Your task to perform on an android device: Go to Android settings Image 0: 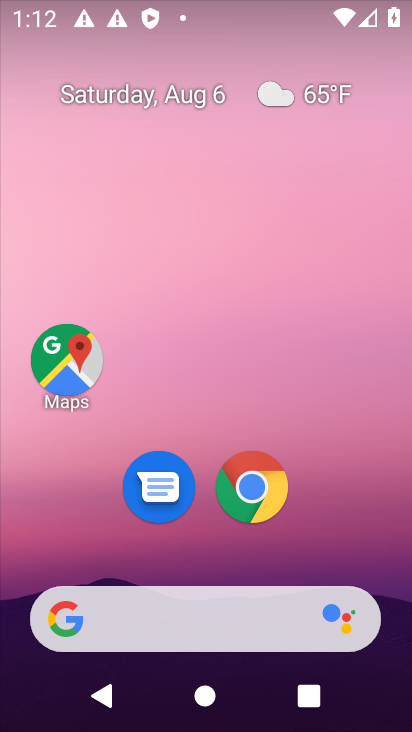
Step 0: drag from (202, 547) to (230, 109)
Your task to perform on an android device: Go to Android settings Image 1: 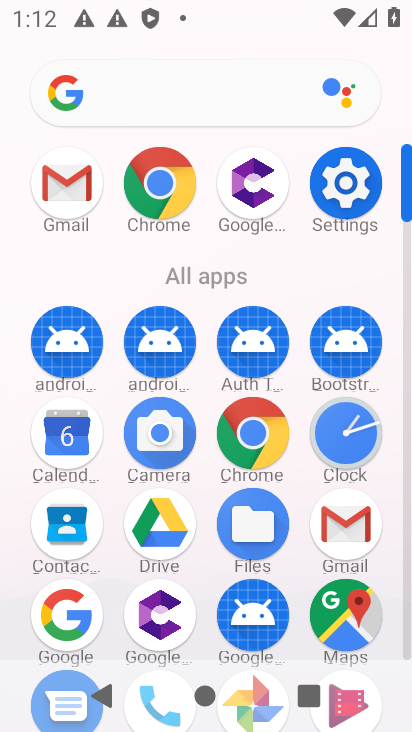
Step 1: click (359, 182)
Your task to perform on an android device: Go to Android settings Image 2: 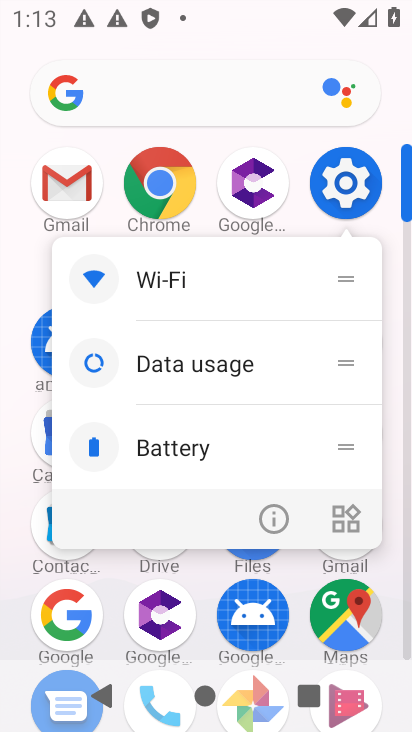
Step 2: click (351, 185)
Your task to perform on an android device: Go to Android settings Image 3: 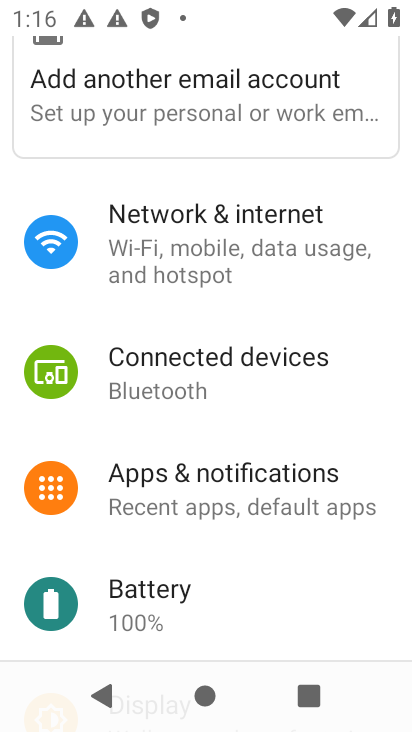
Step 3: task complete